Your task to perform on an android device: Open CNN.com Image 0: 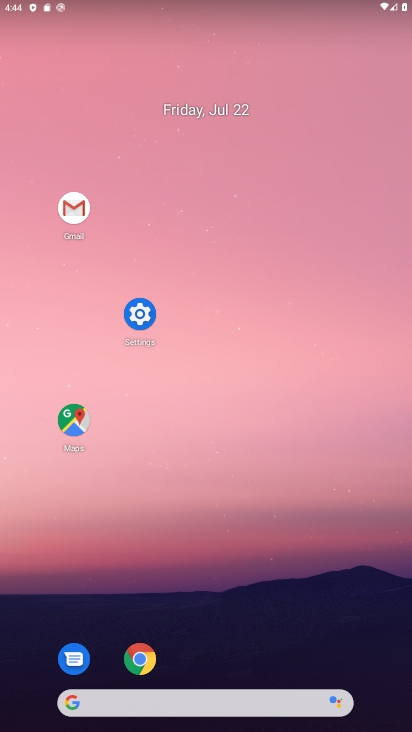
Step 0: click (127, 663)
Your task to perform on an android device: Open CNN.com Image 1: 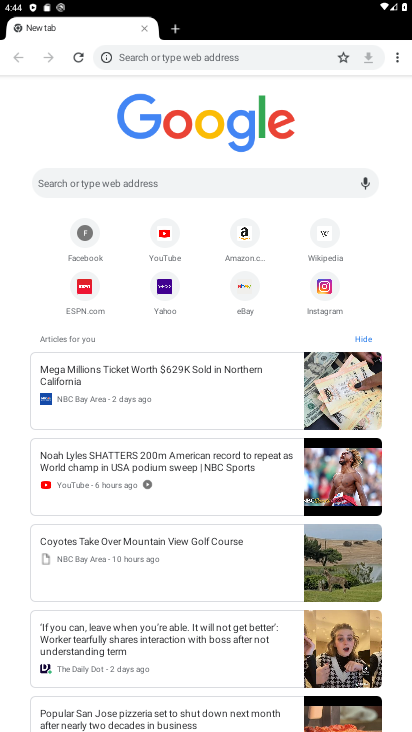
Step 1: click (262, 186)
Your task to perform on an android device: Open CNN.com Image 2: 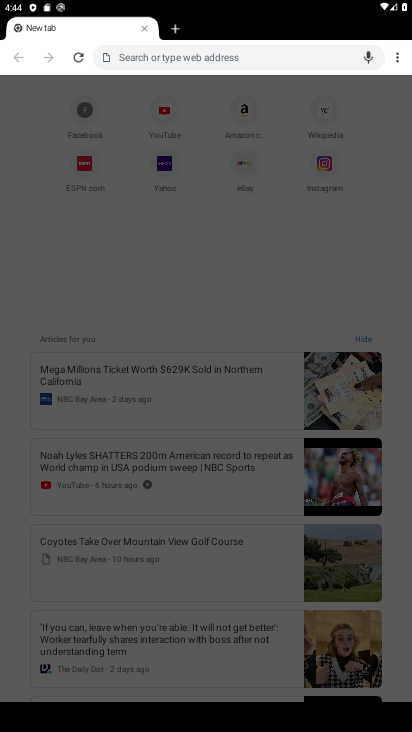
Step 2: type "cnn"
Your task to perform on an android device: Open CNN.com Image 3: 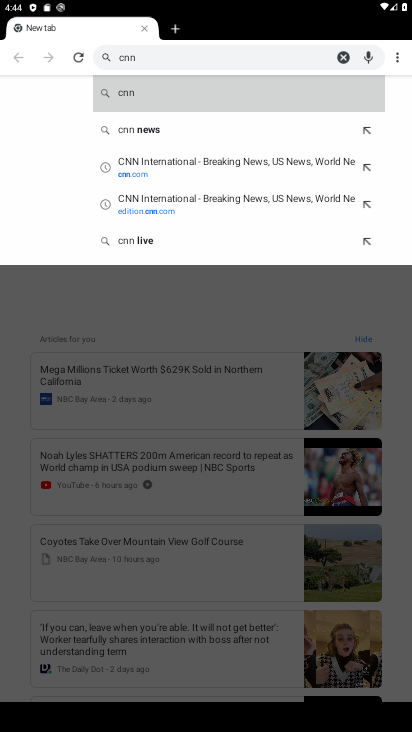
Step 3: click (230, 89)
Your task to perform on an android device: Open CNN.com Image 4: 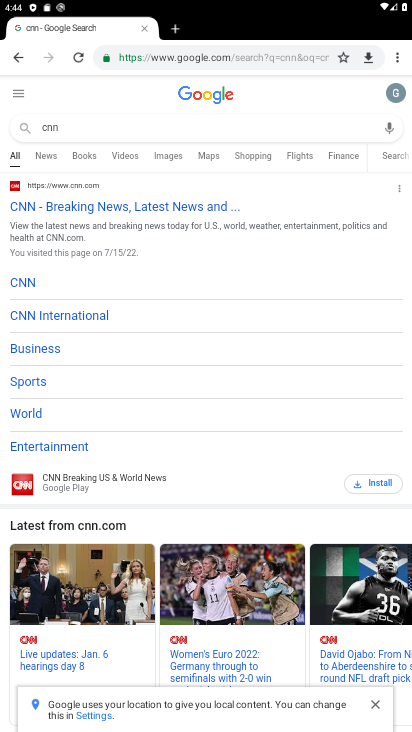
Step 4: click (20, 195)
Your task to perform on an android device: Open CNN.com Image 5: 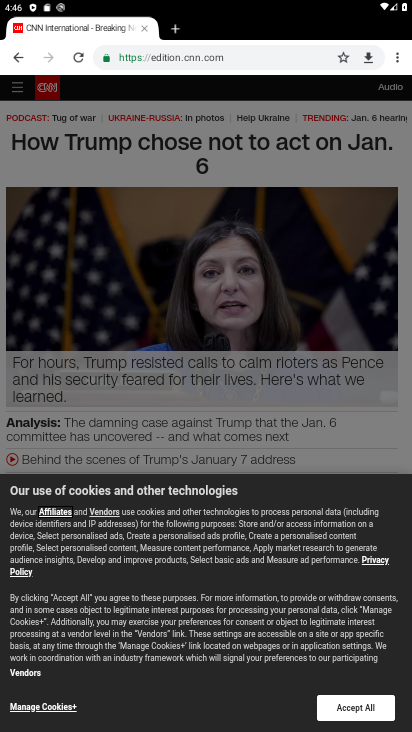
Step 5: task complete